Your task to perform on an android device: When is my next appointment? Image 0: 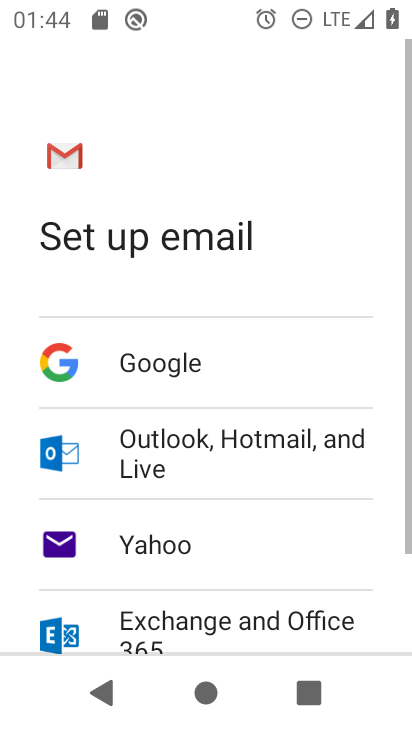
Step 0: press home button
Your task to perform on an android device: When is my next appointment? Image 1: 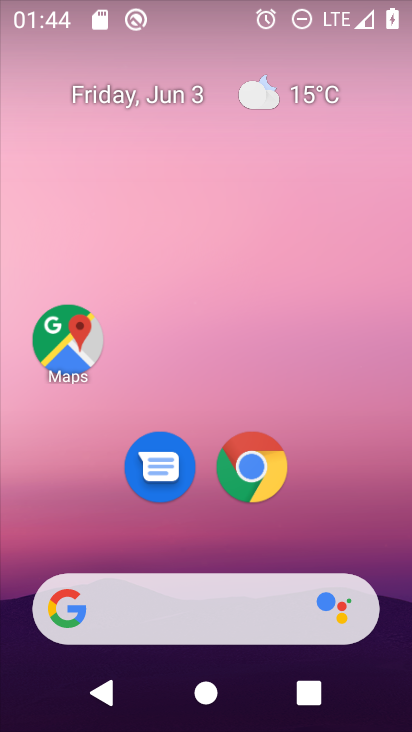
Step 1: drag from (398, 604) to (352, 113)
Your task to perform on an android device: When is my next appointment? Image 2: 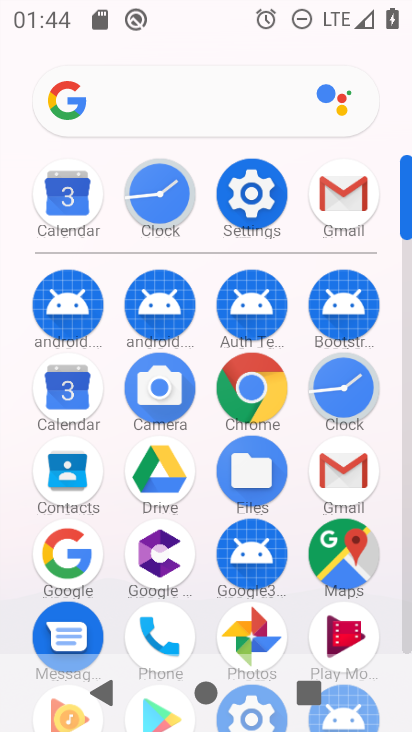
Step 2: click (65, 382)
Your task to perform on an android device: When is my next appointment? Image 3: 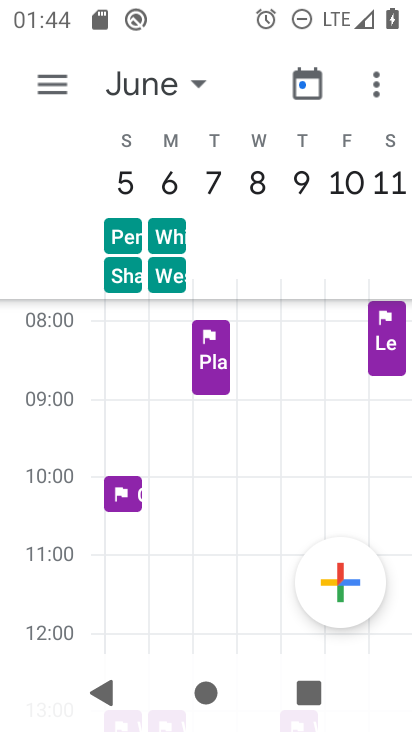
Step 3: click (56, 80)
Your task to perform on an android device: When is my next appointment? Image 4: 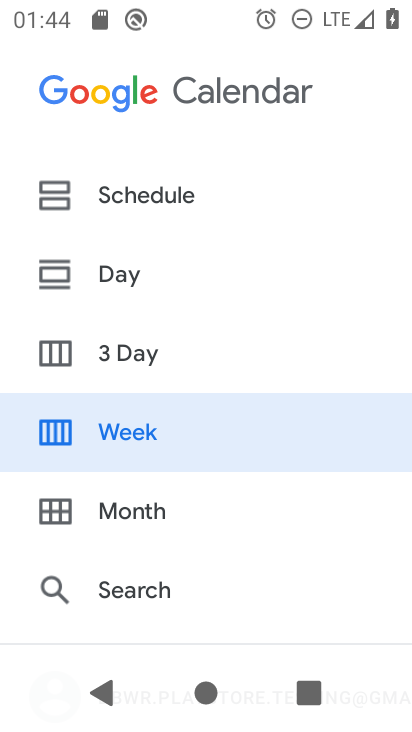
Step 4: click (135, 198)
Your task to perform on an android device: When is my next appointment? Image 5: 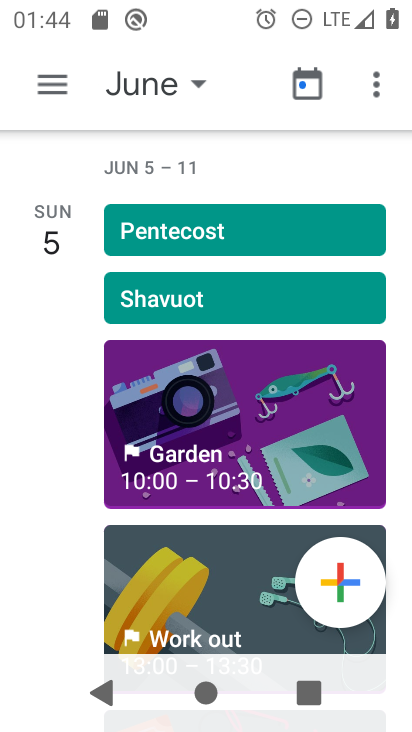
Step 5: task complete